Your task to perform on an android device: Open Android settings Image 0: 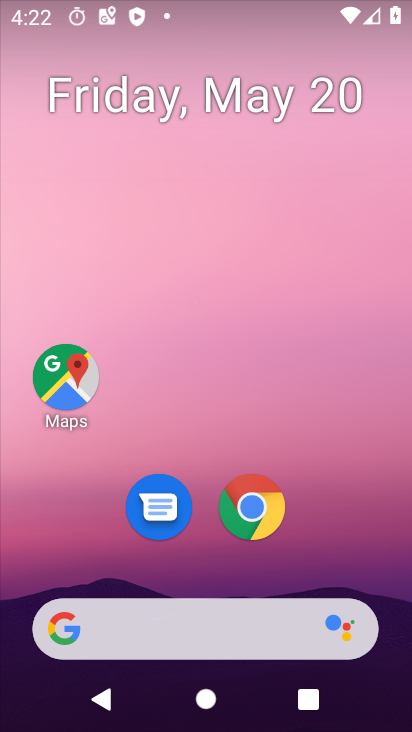
Step 0: drag from (322, 561) to (238, 173)
Your task to perform on an android device: Open Android settings Image 1: 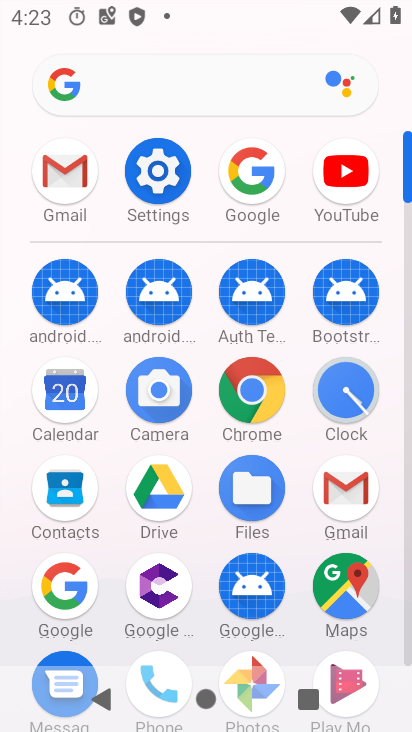
Step 1: click (158, 172)
Your task to perform on an android device: Open Android settings Image 2: 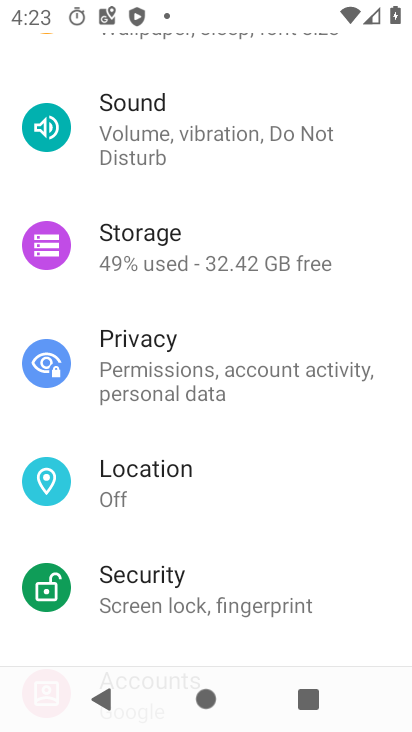
Step 2: task complete